Your task to perform on an android device: Turn on the flashlight Image 0: 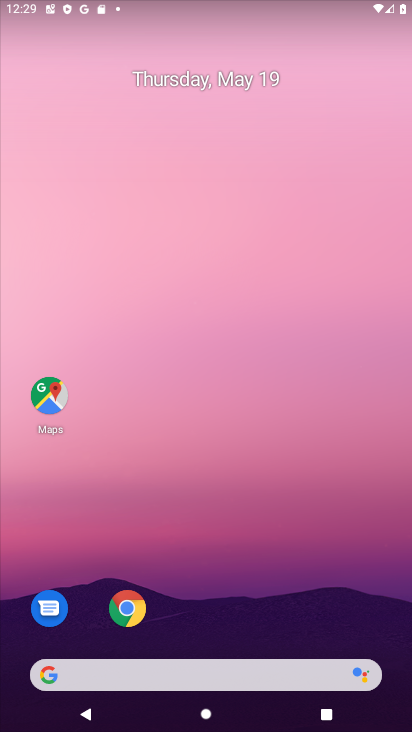
Step 0: drag from (251, 566) to (275, 0)
Your task to perform on an android device: Turn on the flashlight Image 1: 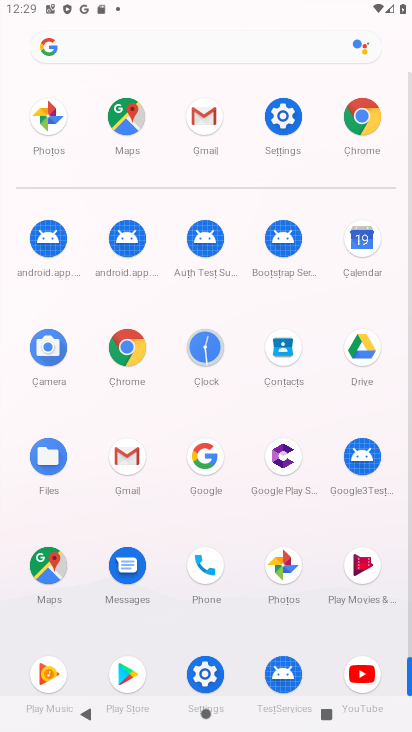
Step 1: click (285, 113)
Your task to perform on an android device: Turn on the flashlight Image 2: 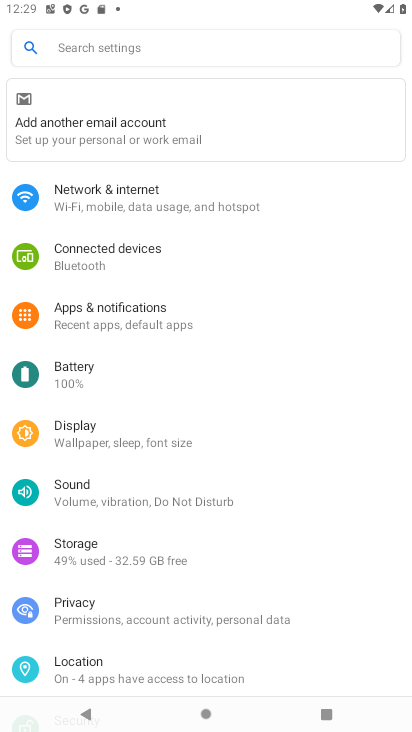
Step 2: task complete